Your task to perform on an android device: clear all cookies in the chrome app Image 0: 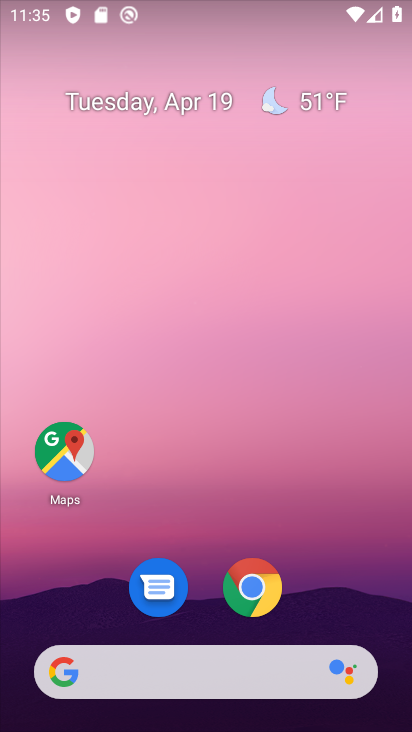
Step 0: click (245, 599)
Your task to perform on an android device: clear all cookies in the chrome app Image 1: 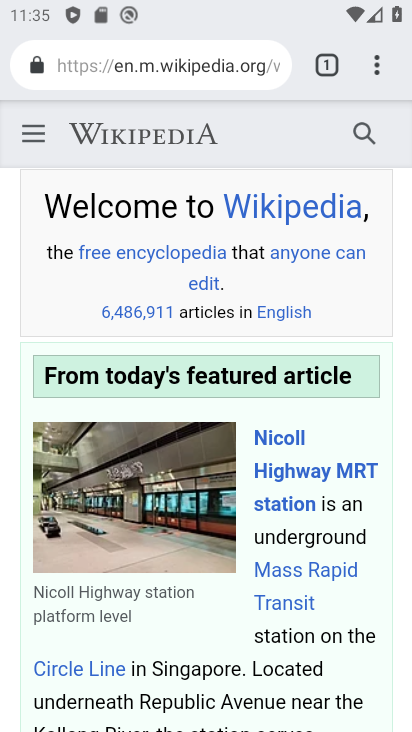
Step 1: click (374, 67)
Your task to perform on an android device: clear all cookies in the chrome app Image 2: 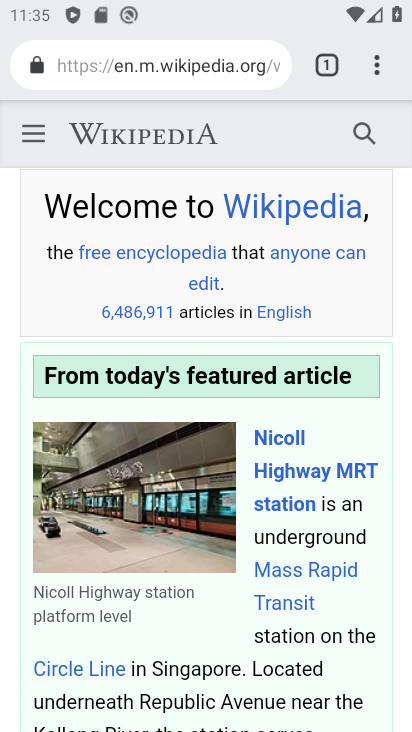
Step 2: click (373, 63)
Your task to perform on an android device: clear all cookies in the chrome app Image 3: 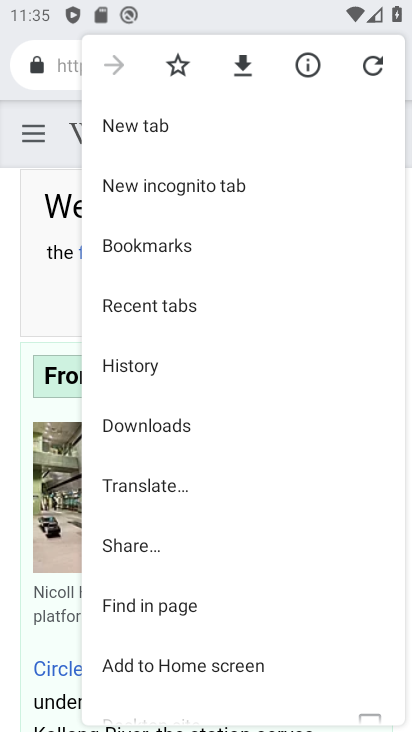
Step 3: click (163, 369)
Your task to perform on an android device: clear all cookies in the chrome app Image 4: 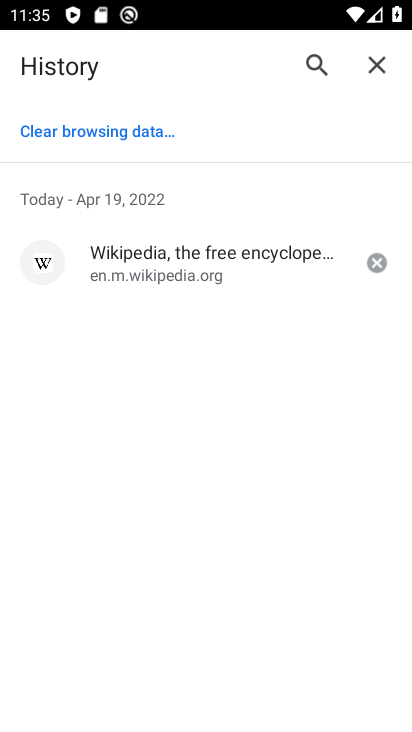
Step 4: click (126, 132)
Your task to perform on an android device: clear all cookies in the chrome app Image 5: 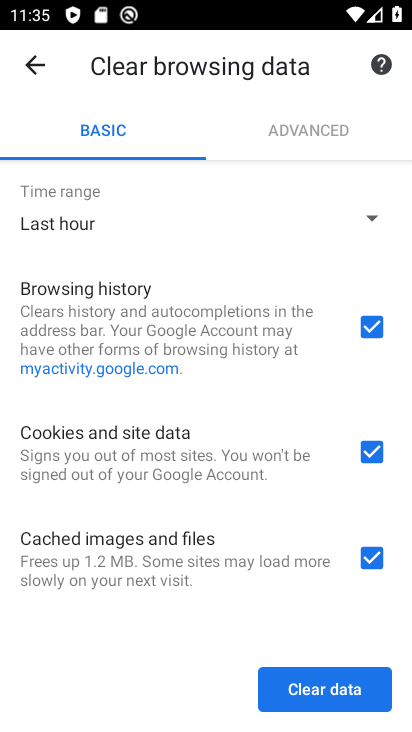
Step 5: click (368, 324)
Your task to perform on an android device: clear all cookies in the chrome app Image 6: 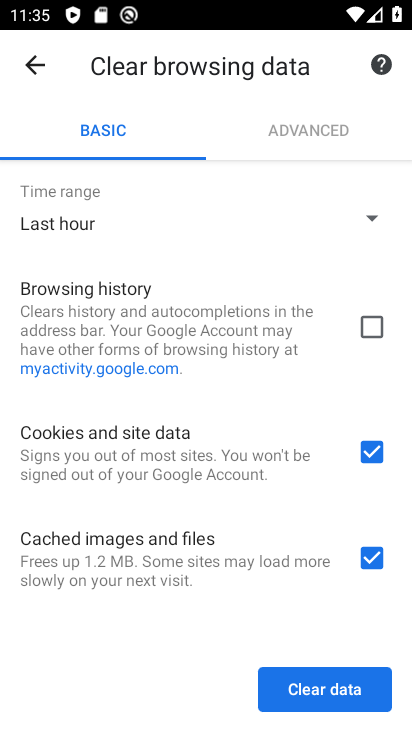
Step 6: click (375, 552)
Your task to perform on an android device: clear all cookies in the chrome app Image 7: 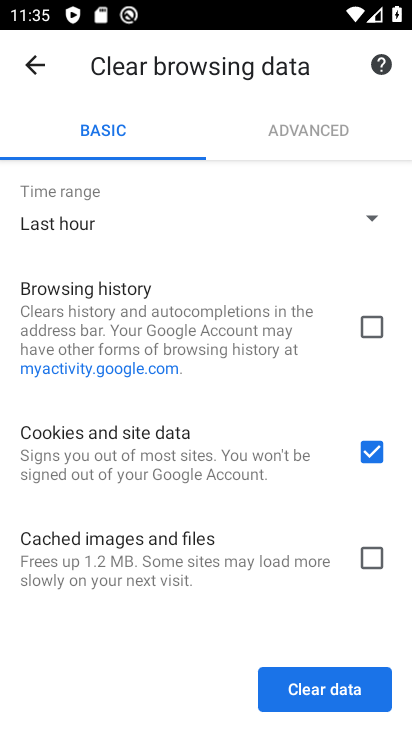
Step 7: click (325, 677)
Your task to perform on an android device: clear all cookies in the chrome app Image 8: 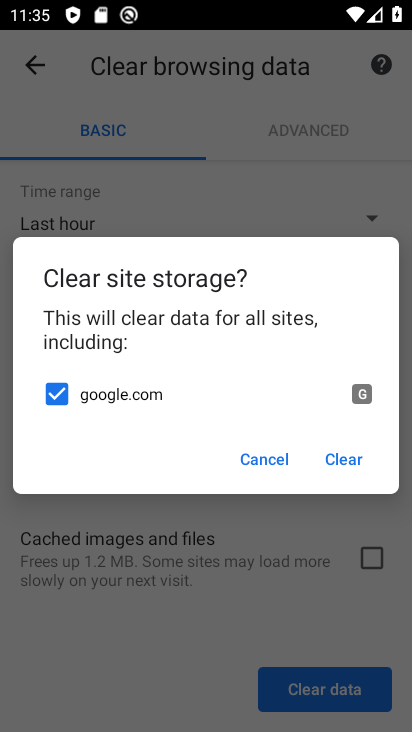
Step 8: click (336, 470)
Your task to perform on an android device: clear all cookies in the chrome app Image 9: 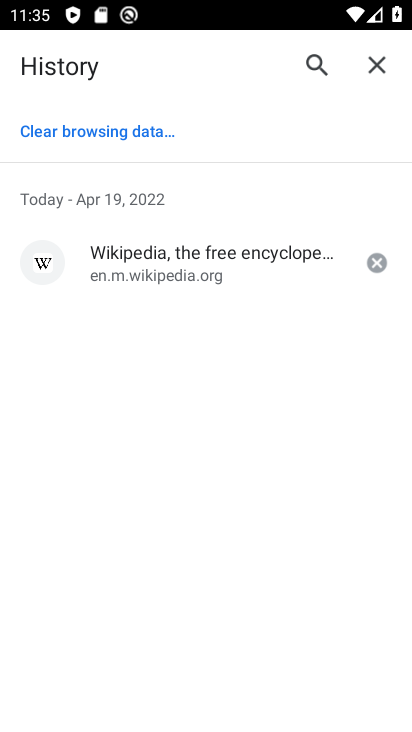
Step 9: task complete